Your task to perform on an android device: See recent photos Image 0: 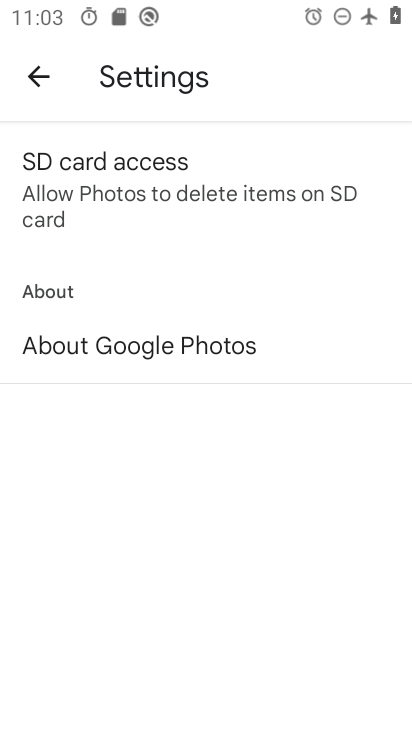
Step 0: press home button
Your task to perform on an android device: See recent photos Image 1: 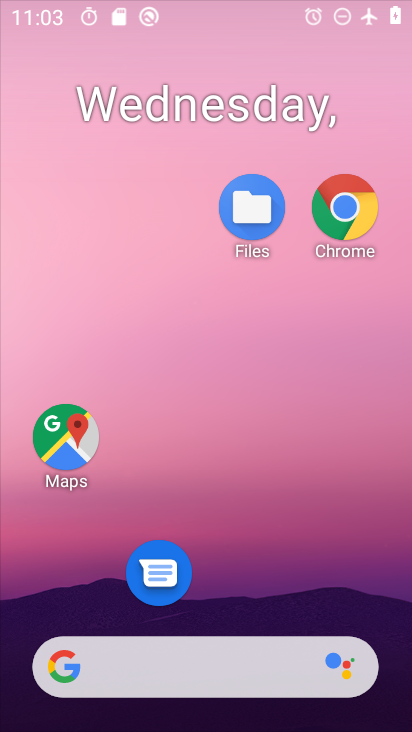
Step 1: drag from (187, 578) to (199, 146)
Your task to perform on an android device: See recent photos Image 2: 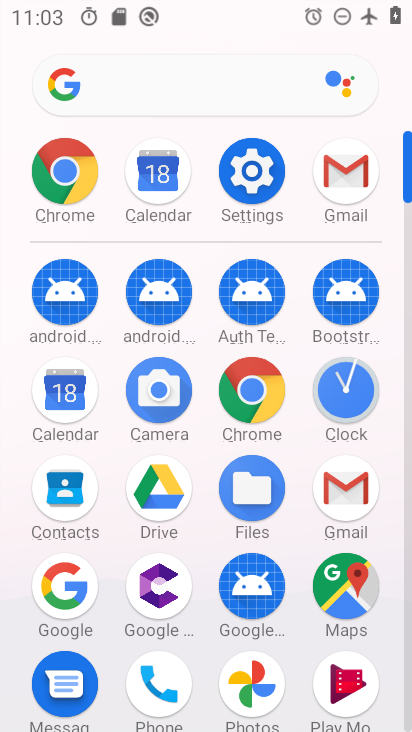
Step 2: drag from (202, 529) to (224, 183)
Your task to perform on an android device: See recent photos Image 3: 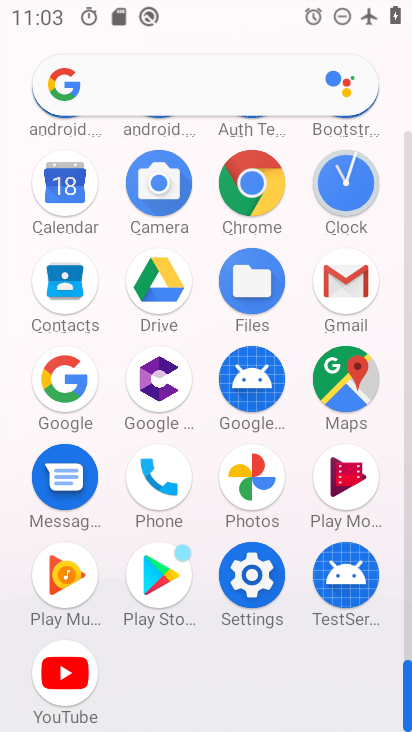
Step 3: click (244, 476)
Your task to perform on an android device: See recent photos Image 4: 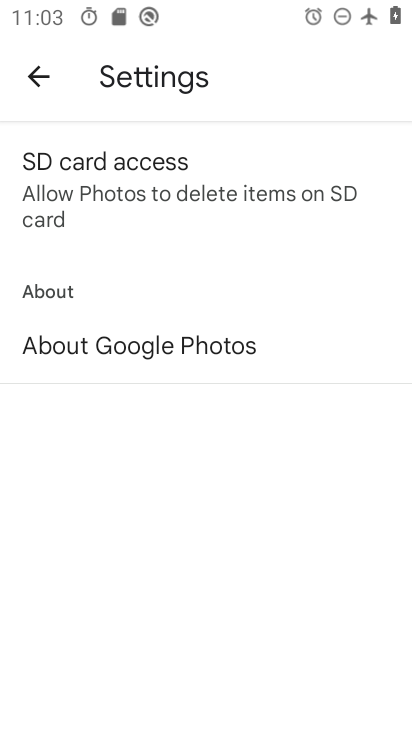
Step 4: click (43, 80)
Your task to perform on an android device: See recent photos Image 5: 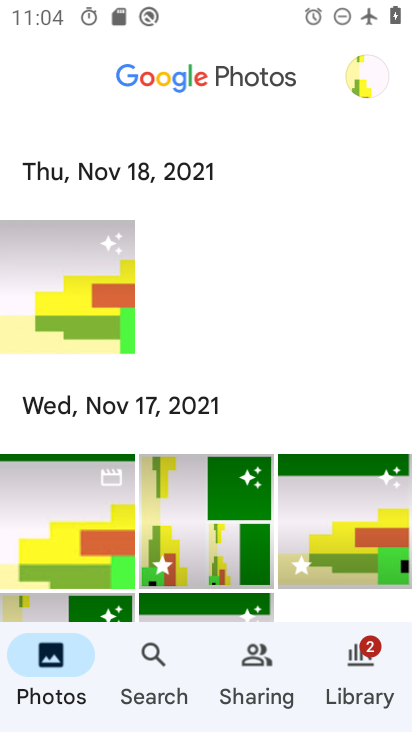
Step 5: task complete